Your task to perform on an android device: choose inbox layout in the gmail app Image 0: 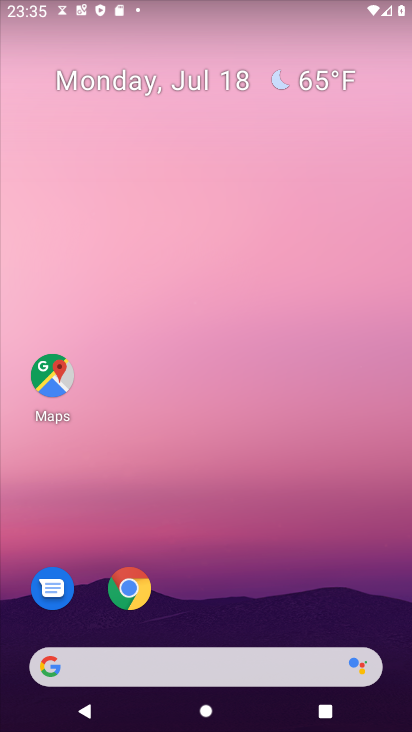
Step 0: press home button
Your task to perform on an android device: choose inbox layout in the gmail app Image 1: 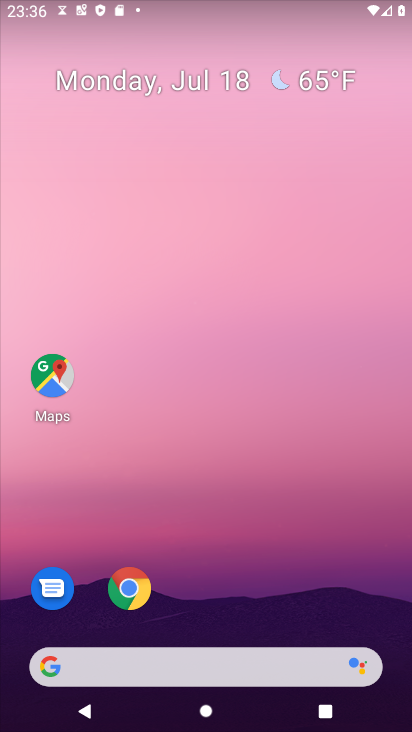
Step 1: drag from (205, 546) to (259, 10)
Your task to perform on an android device: choose inbox layout in the gmail app Image 2: 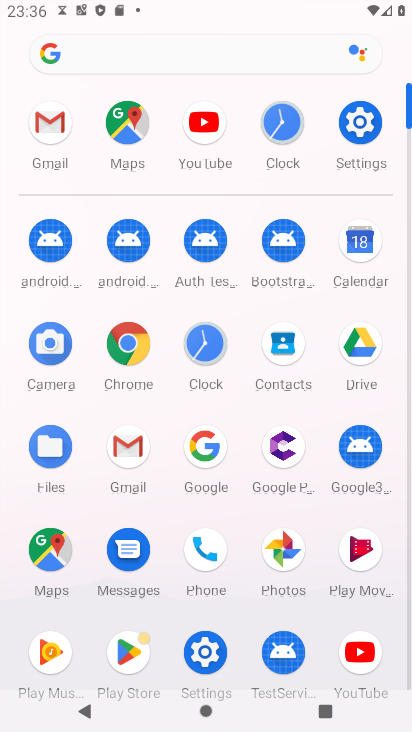
Step 2: click (51, 127)
Your task to perform on an android device: choose inbox layout in the gmail app Image 3: 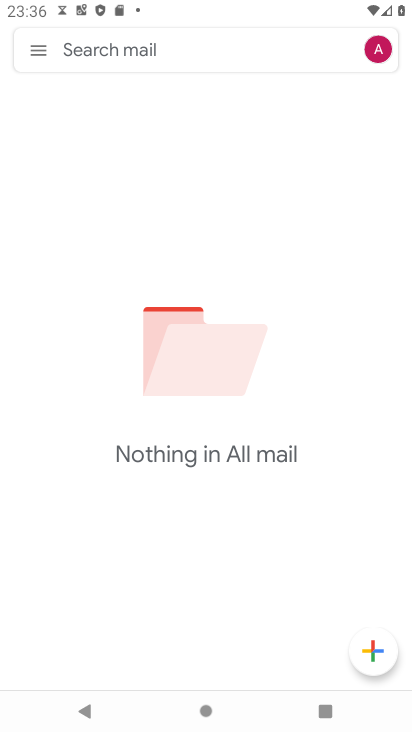
Step 3: click (36, 48)
Your task to perform on an android device: choose inbox layout in the gmail app Image 4: 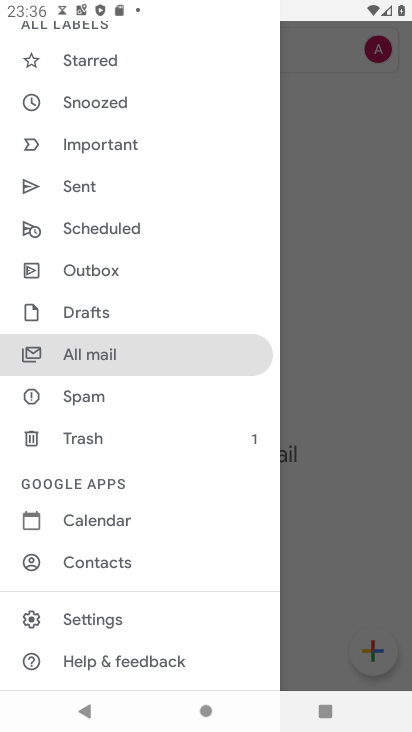
Step 4: click (89, 619)
Your task to perform on an android device: choose inbox layout in the gmail app Image 5: 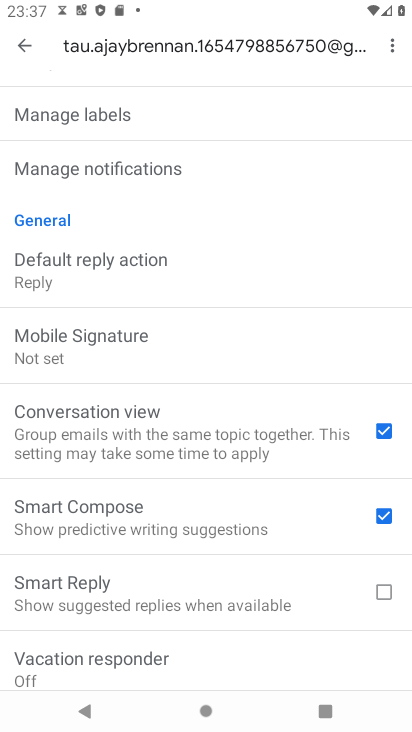
Step 5: drag from (187, 213) to (157, 607)
Your task to perform on an android device: choose inbox layout in the gmail app Image 6: 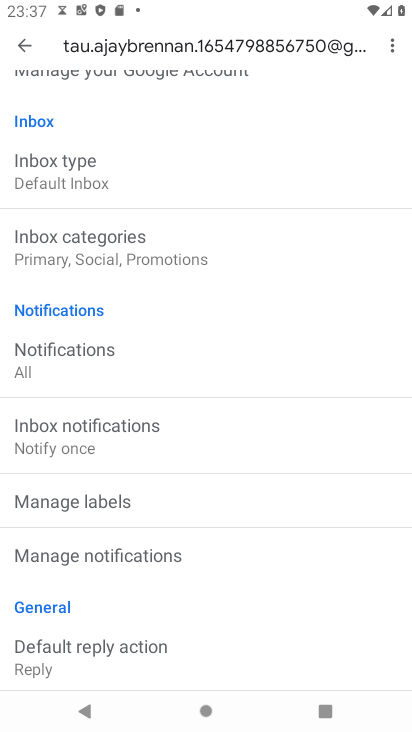
Step 6: click (88, 175)
Your task to perform on an android device: choose inbox layout in the gmail app Image 7: 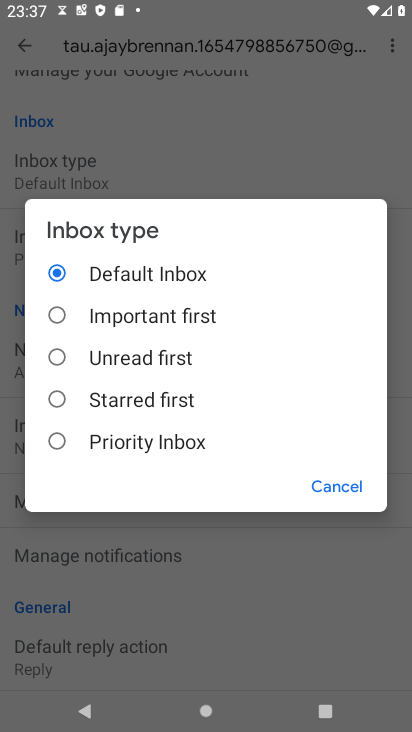
Step 7: task complete